Your task to perform on an android device: See recent photos Image 0: 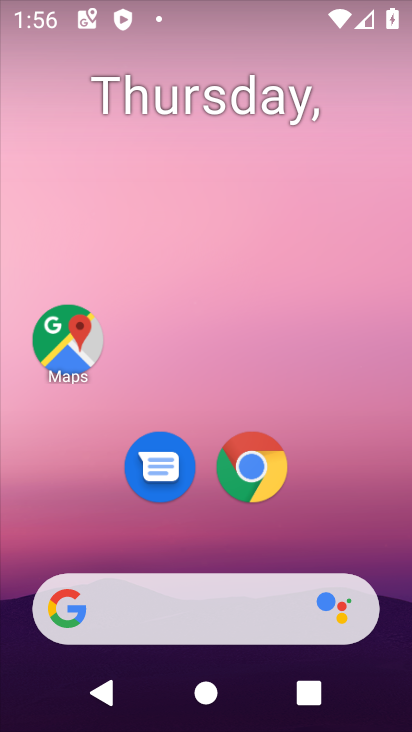
Step 0: drag from (341, 533) to (318, 197)
Your task to perform on an android device: See recent photos Image 1: 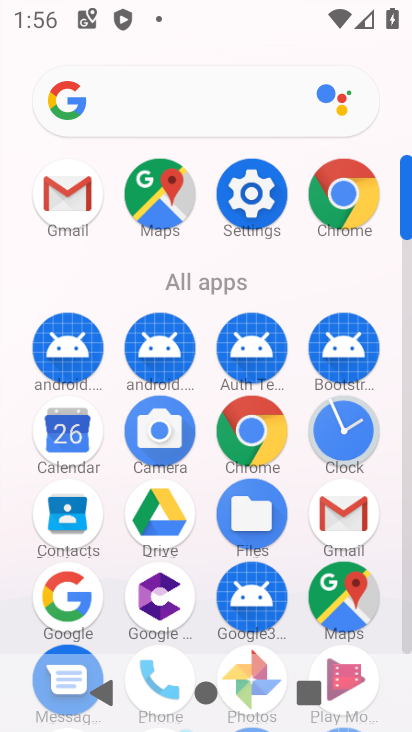
Step 1: drag from (202, 605) to (202, 321)
Your task to perform on an android device: See recent photos Image 2: 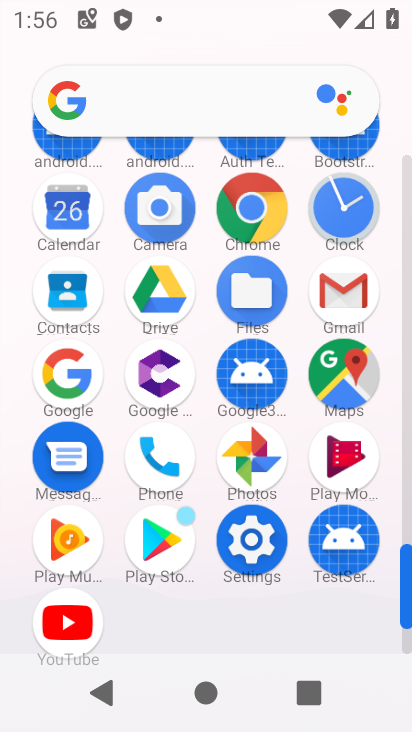
Step 2: click (245, 468)
Your task to perform on an android device: See recent photos Image 3: 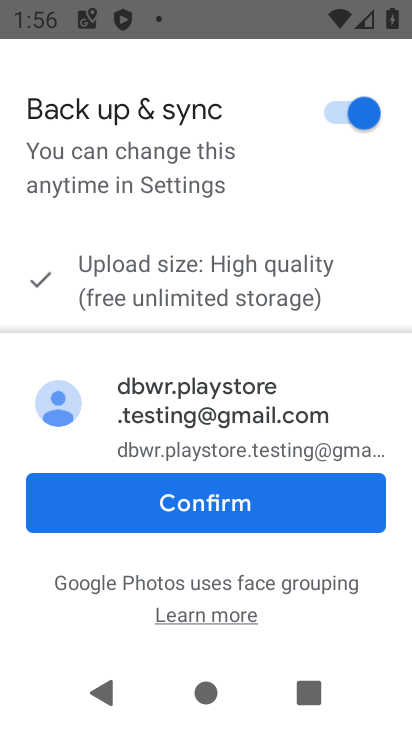
Step 3: click (244, 519)
Your task to perform on an android device: See recent photos Image 4: 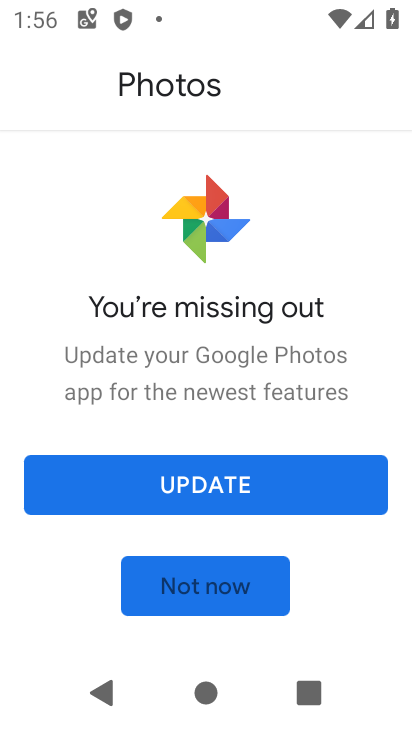
Step 4: click (237, 491)
Your task to perform on an android device: See recent photos Image 5: 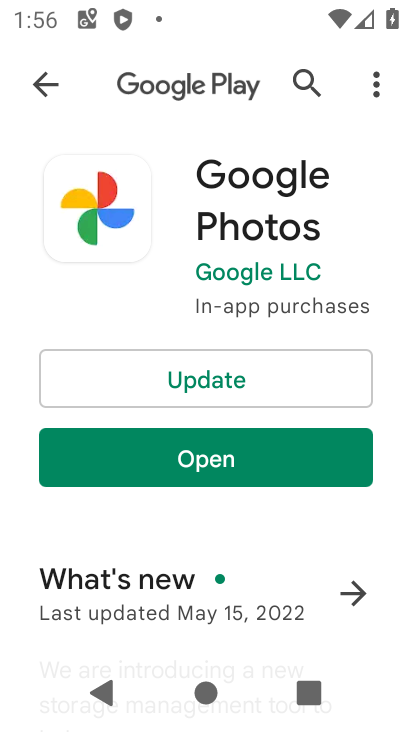
Step 5: click (269, 388)
Your task to perform on an android device: See recent photos Image 6: 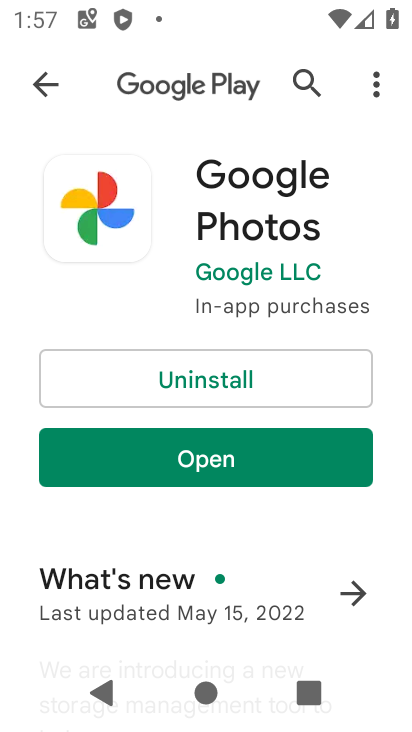
Step 6: click (294, 484)
Your task to perform on an android device: See recent photos Image 7: 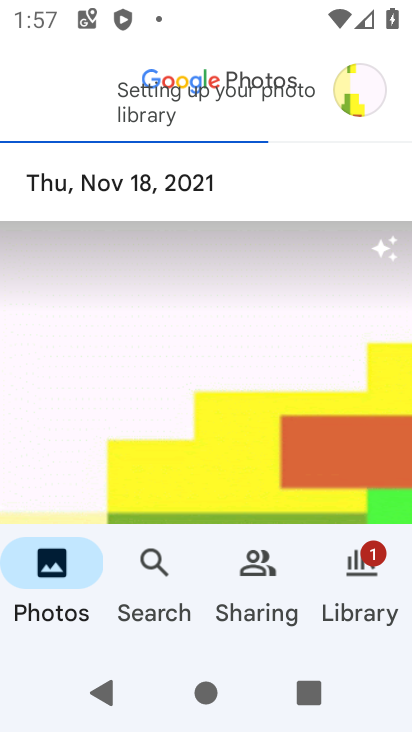
Step 7: task complete